Your task to perform on an android device: Open the map Image 0: 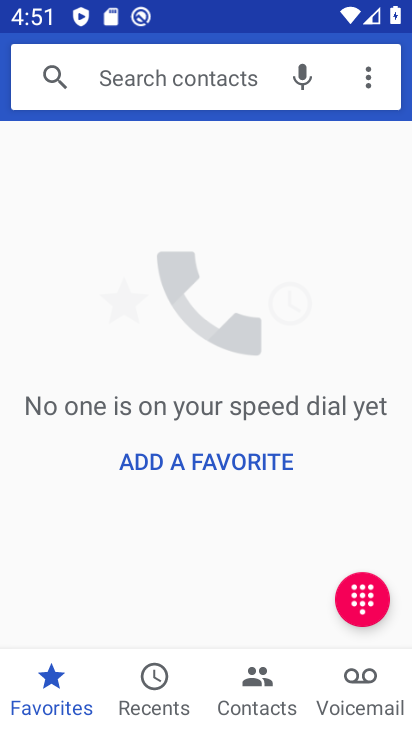
Step 0: press back button
Your task to perform on an android device: Open the map Image 1: 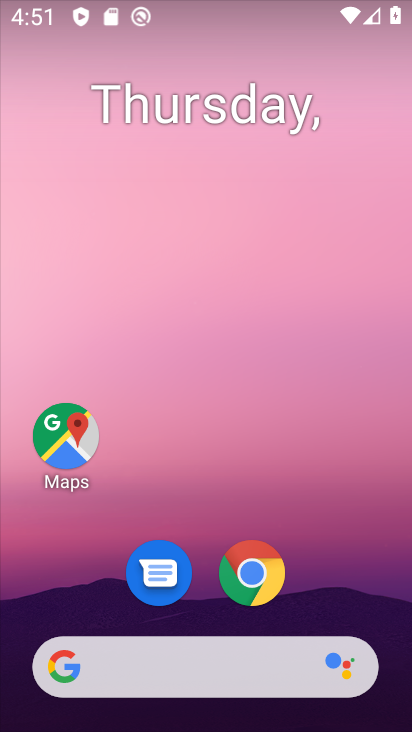
Step 1: drag from (328, 597) to (214, 45)
Your task to perform on an android device: Open the map Image 2: 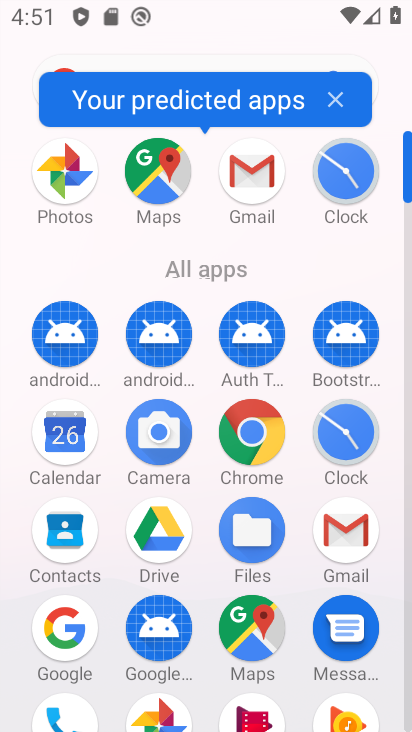
Step 2: click (248, 626)
Your task to perform on an android device: Open the map Image 3: 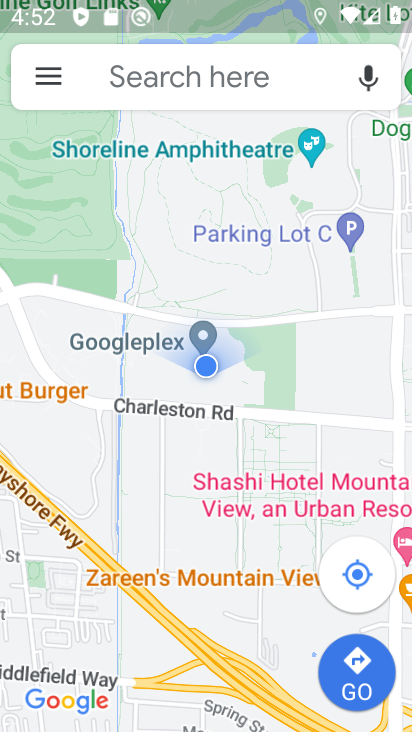
Step 3: task complete